Your task to perform on an android device: toggle notifications settings in the gmail app Image 0: 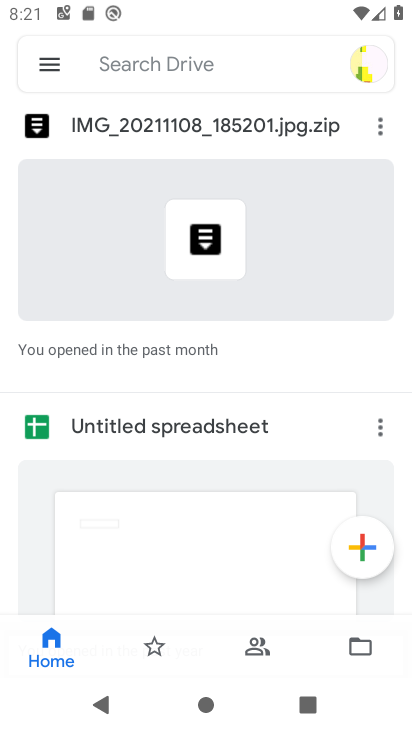
Step 0: press back button
Your task to perform on an android device: toggle notifications settings in the gmail app Image 1: 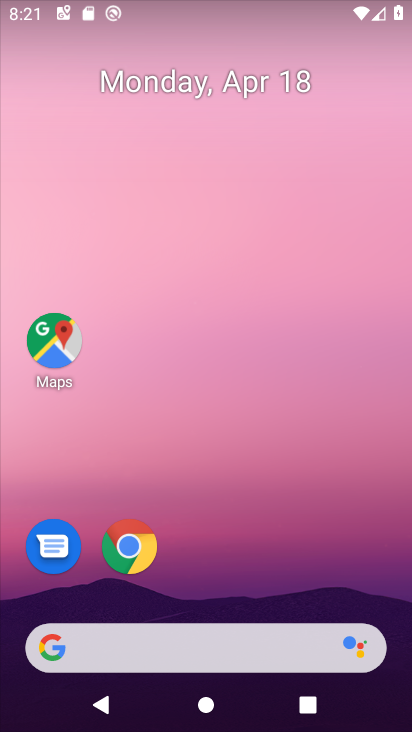
Step 1: drag from (245, 574) to (138, 93)
Your task to perform on an android device: toggle notifications settings in the gmail app Image 2: 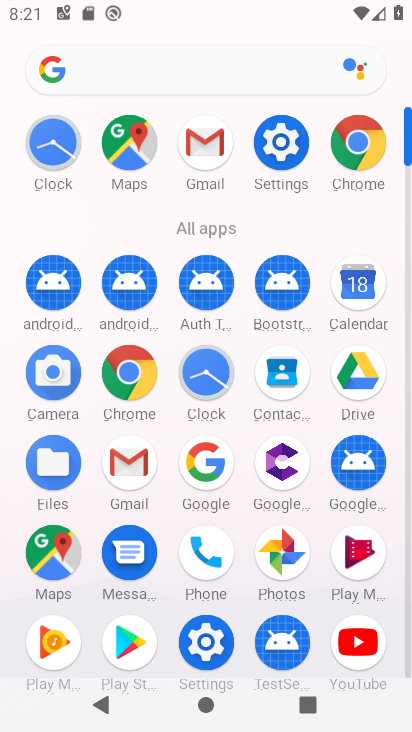
Step 2: click (208, 153)
Your task to perform on an android device: toggle notifications settings in the gmail app Image 3: 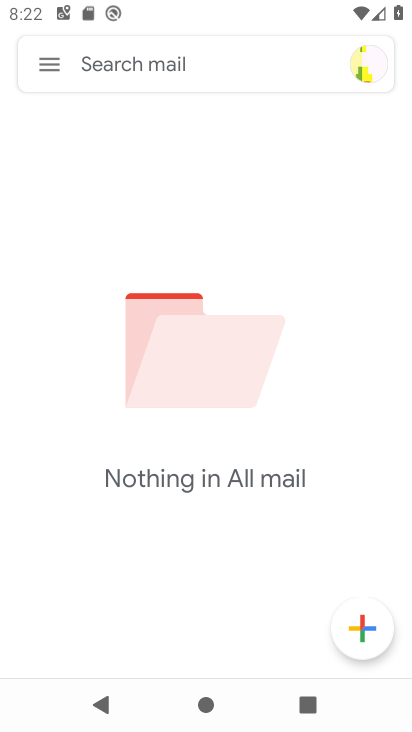
Step 3: click (52, 66)
Your task to perform on an android device: toggle notifications settings in the gmail app Image 4: 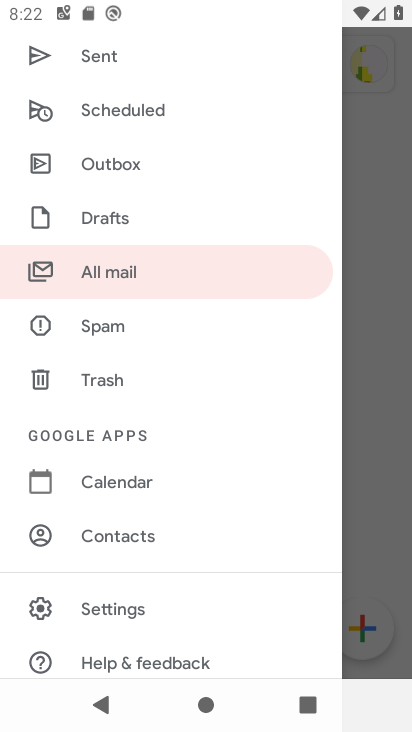
Step 4: click (210, 626)
Your task to perform on an android device: toggle notifications settings in the gmail app Image 5: 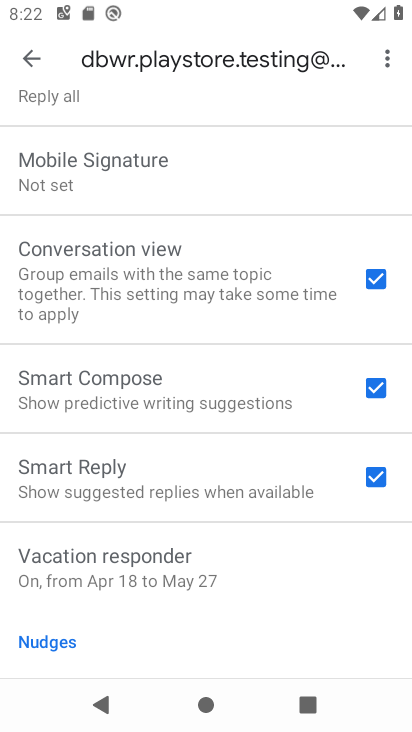
Step 5: drag from (199, 171) to (268, 718)
Your task to perform on an android device: toggle notifications settings in the gmail app Image 6: 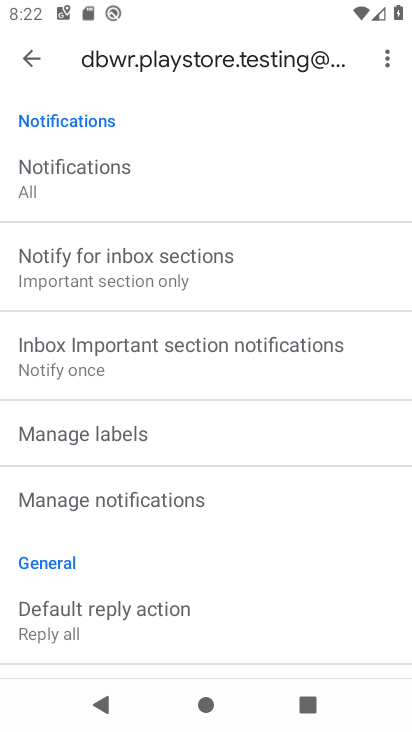
Step 6: click (240, 513)
Your task to perform on an android device: toggle notifications settings in the gmail app Image 7: 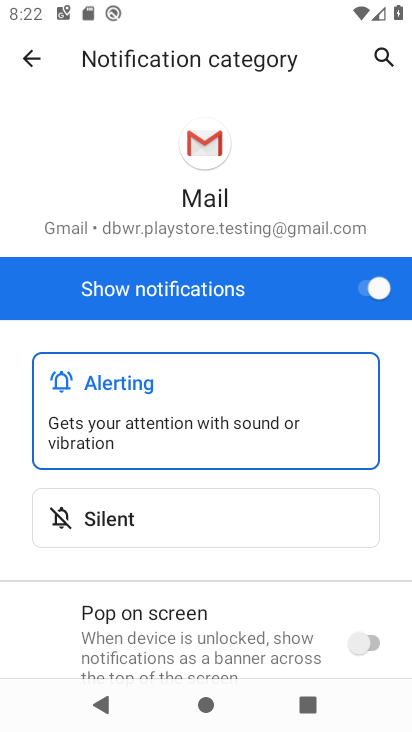
Step 7: drag from (330, 574) to (274, 456)
Your task to perform on an android device: toggle notifications settings in the gmail app Image 8: 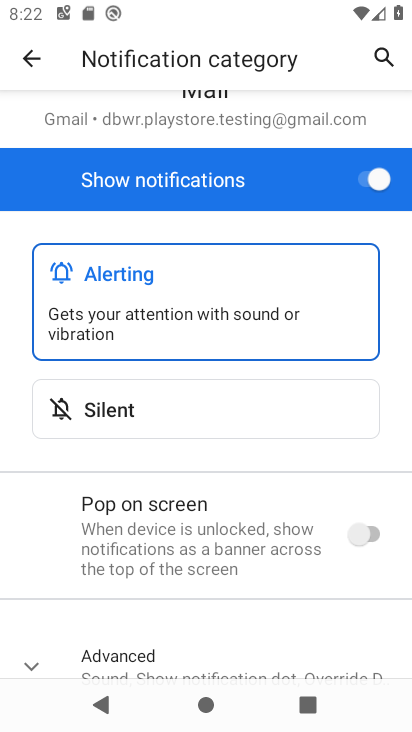
Step 8: click (283, 414)
Your task to perform on an android device: toggle notifications settings in the gmail app Image 9: 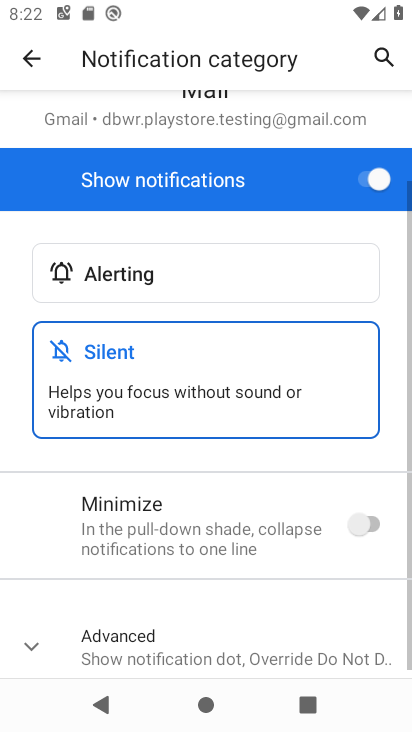
Step 9: click (370, 525)
Your task to perform on an android device: toggle notifications settings in the gmail app Image 10: 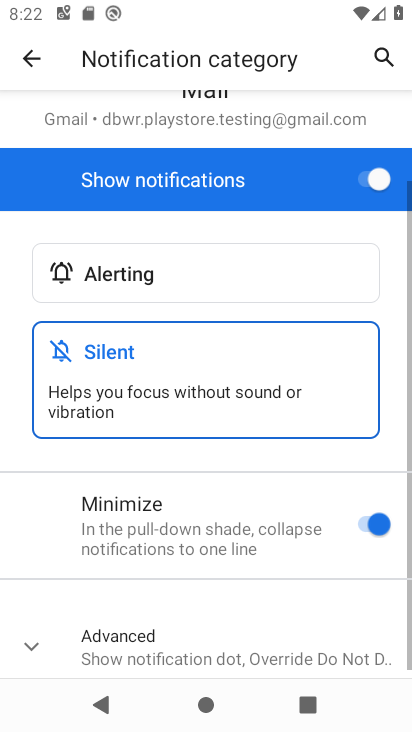
Step 10: drag from (356, 597) to (290, 286)
Your task to perform on an android device: toggle notifications settings in the gmail app Image 11: 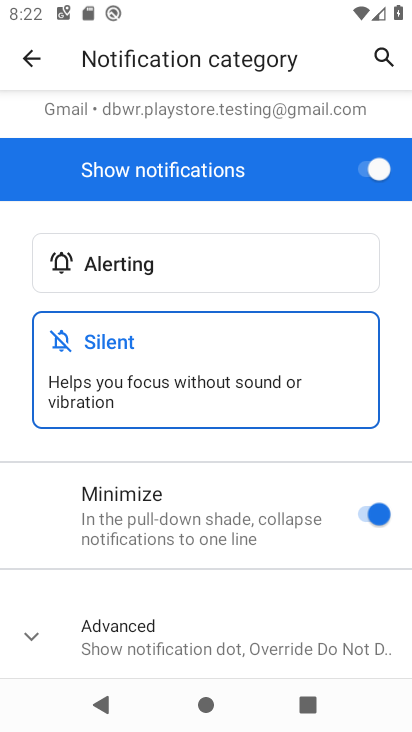
Step 11: click (322, 625)
Your task to perform on an android device: toggle notifications settings in the gmail app Image 12: 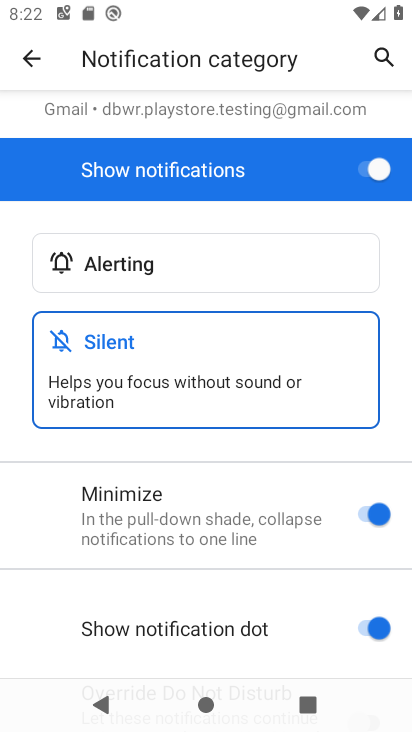
Step 12: drag from (309, 588) to (223, 216)
Your task to perform on an android device: toggle notifications settings in the gmail app Image 13: 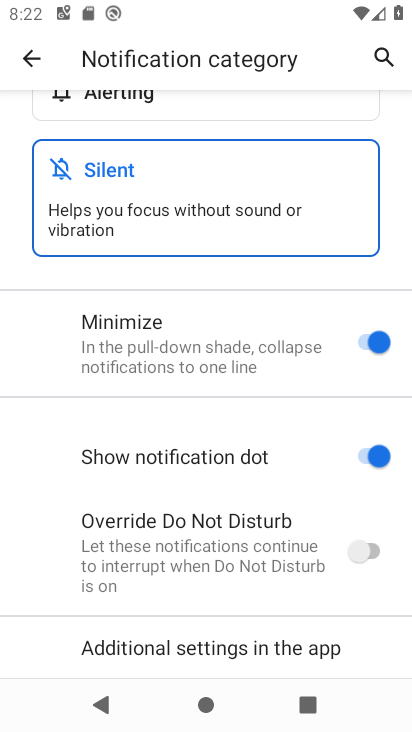
Step 13: click (375, 456)
Your task to perform on an android device: toggle notifications settings in the gmail app Image 14: 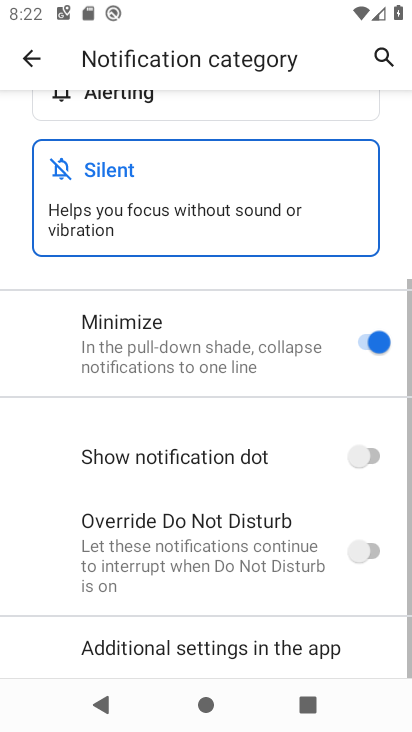
Step 14: click (370, 560)
Your task to perform on an android device: toggle notifications settings in the gmail app Image 15: 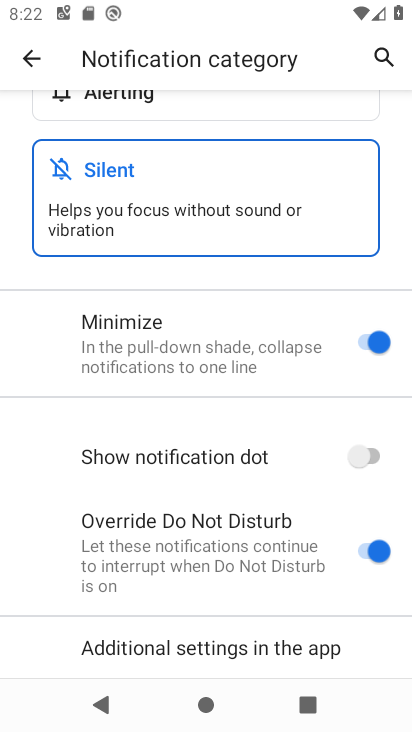
Step 15: task complete